Your task to perform on an android device: change the clock display to analog Image 0: 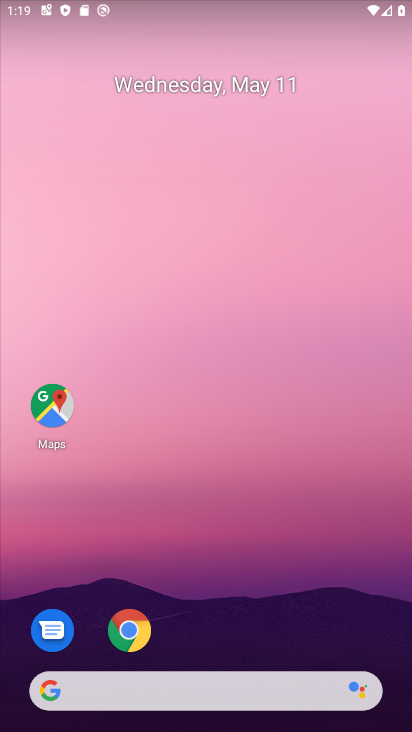
Step 0: drag from (286, 486) to (266, 89)
Your task to perform on an android device: change the clock display to analog Image 1: 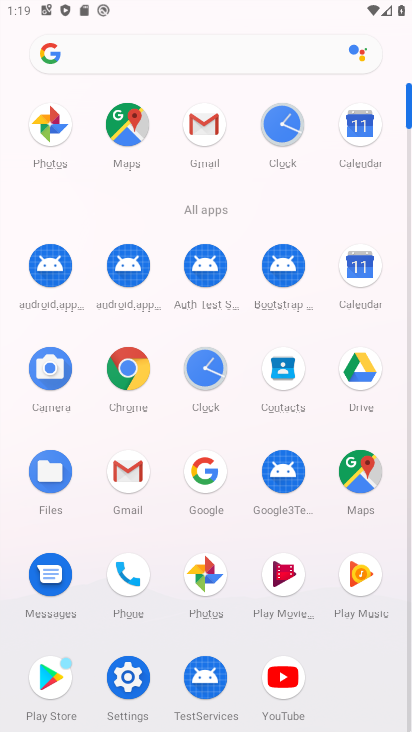
Step 1: click (285, 132)
Your task to perform on an android device: change the clock display to analog Image 2: 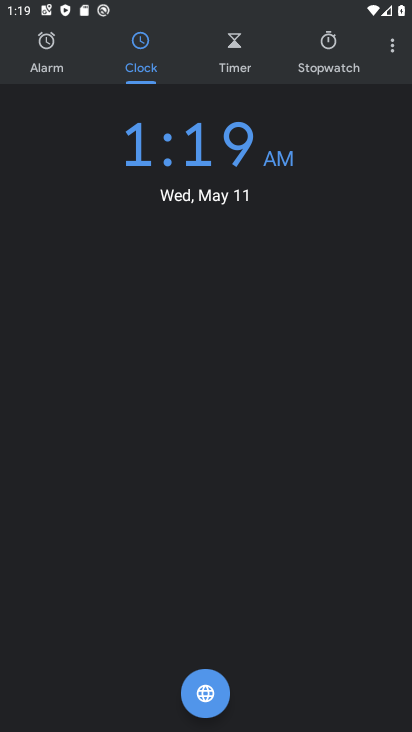
Step 2: click (405, 36)
Your task to perform on an android device: change the clock display to analog Image 3: 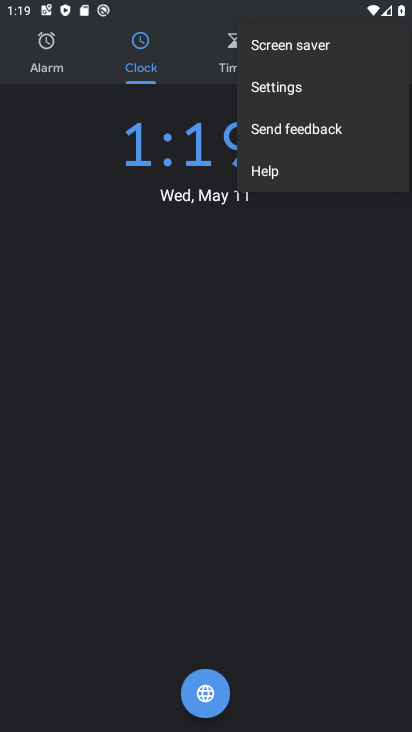
Step 3: click (281, 106)
Your task to perform on an android device: change the clock display to analog Image 4: 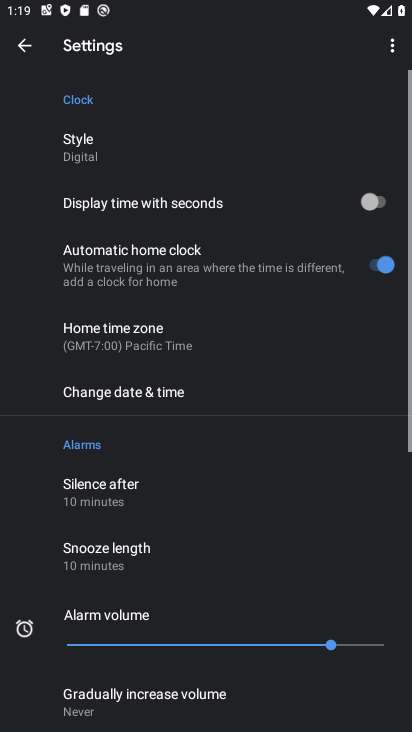
Step 4: click (94, 146)
Your task to perform on an android device: change the clock display to analog Image 5: 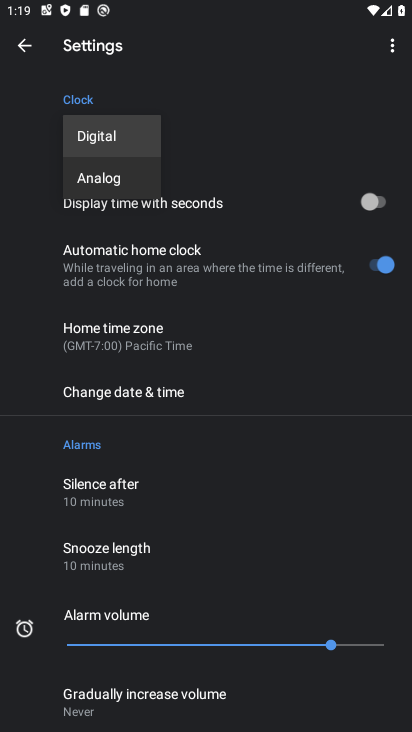
Step 5: click (109, 185)
Your task to perform on an android device: change the clock display to analog Image 6: 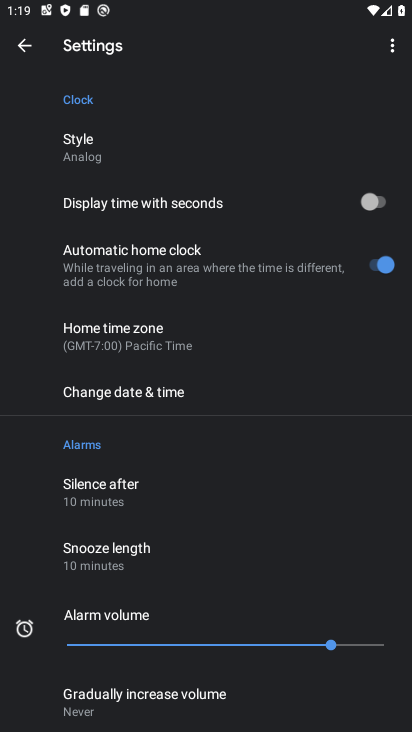
Step 6: task complete